Your task to perform on an android device: toggle sleep mode Image 0: 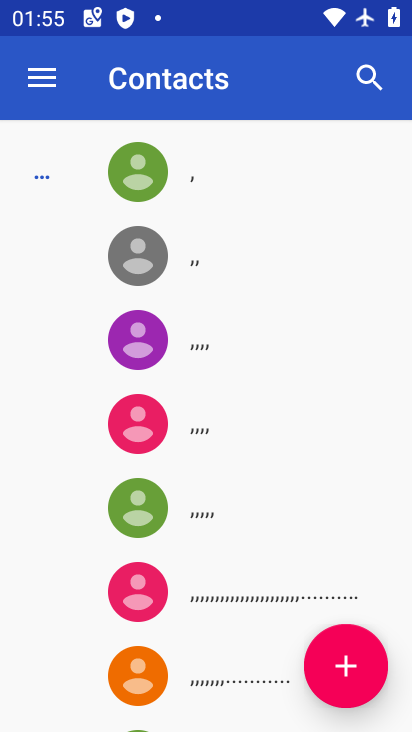
Step 0: press home button
Your task to perform on an android device: toggle sleep mode Image 1: 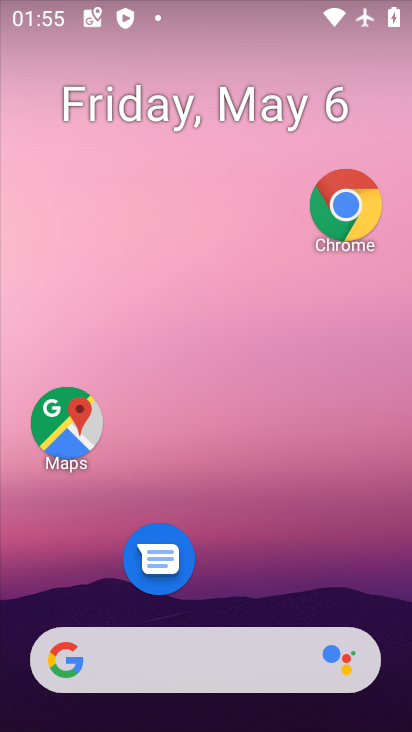
Step 1: drag from (172, 640) to (326, 38)
Your task to perform on an android device: toggle sleep mode Image 2: 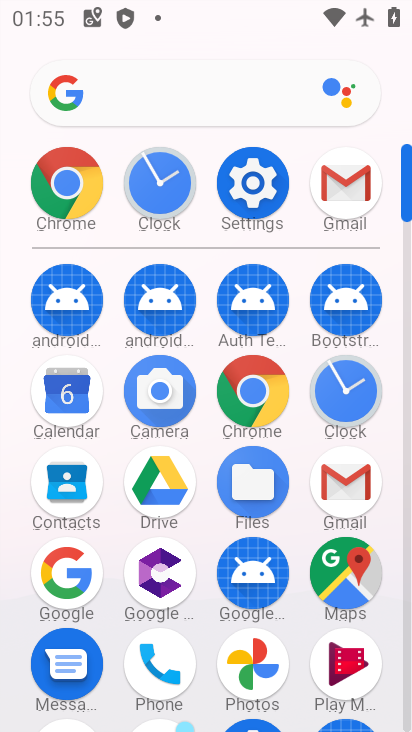
Step 2: click (264, 187)
Your task to perform on an android device: toggle sleep mode Image 3: 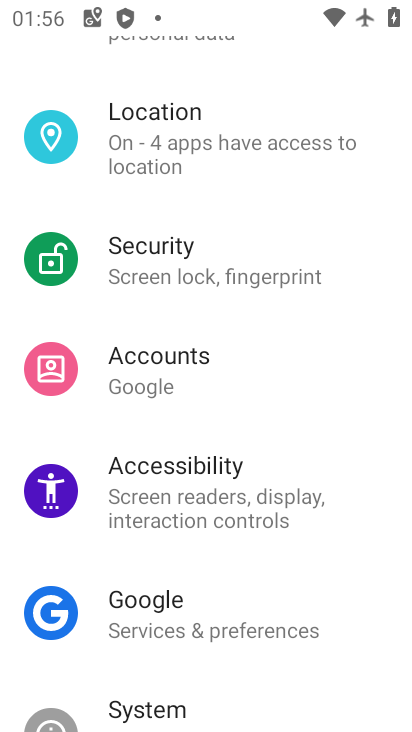
Step 3: drag from (283, 186) to (230, 643)
Your task to perform on an android device: toggle sleep mode Image 4: 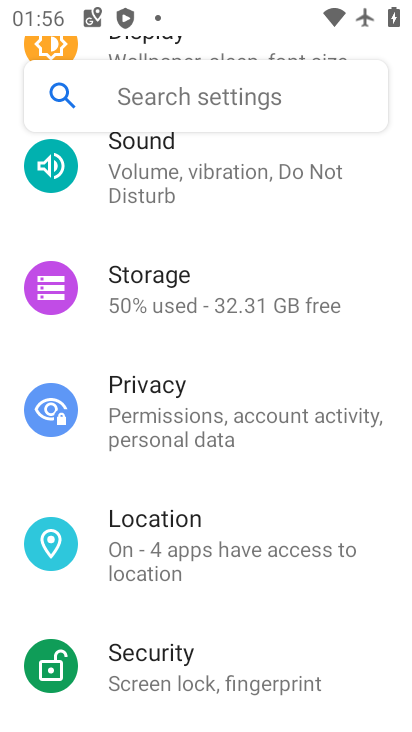
Step 4: drag from (284, 290) to (246, 535)
Your task to perform on an android device: toggle sleep mode Image 5: 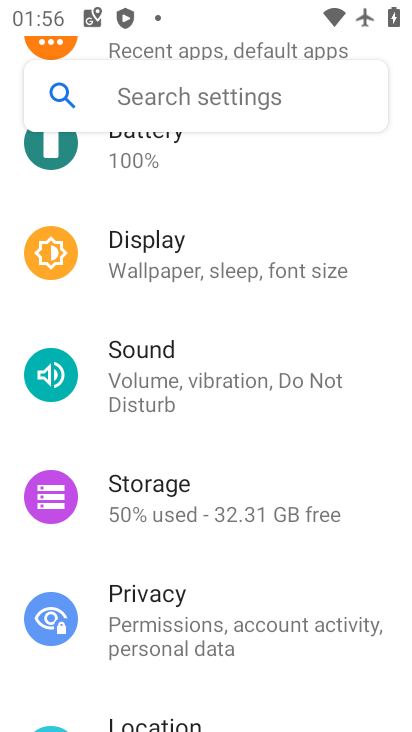
Step 5: click (276, 243)
Your task to perform on an android device: toggle sleep mode Image 6: 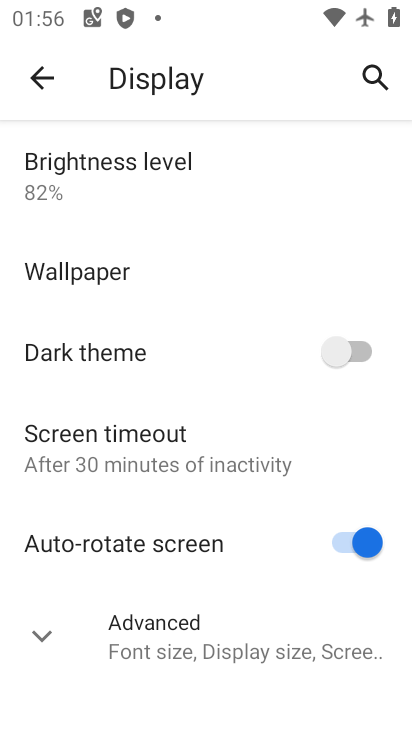
Step 6: task complete